Your task to perform on an android device: Open Youtube and go to "Your channel" Image 0: 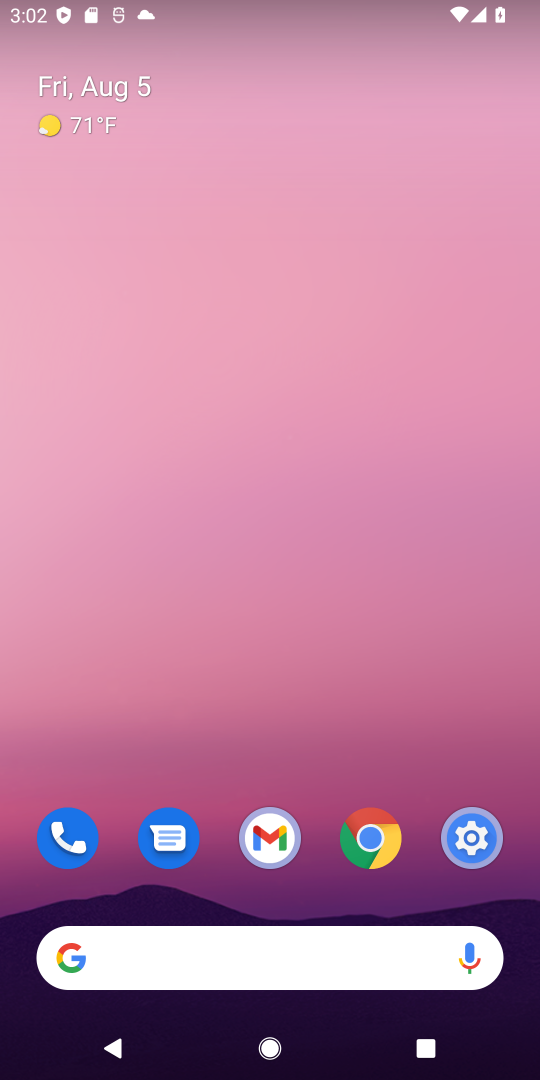
Step 0: drag from (423, 786) to (358, 64)
Your task to perform on an android device: Open Youtube and go to "Your channel" Image 1: 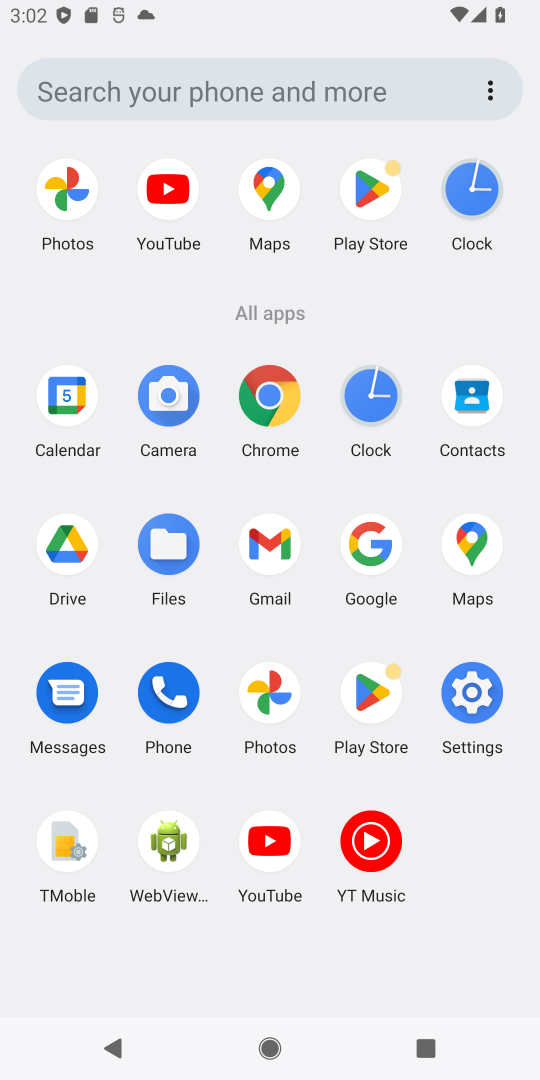
Step 1: click (268, 842)
Your task to perform on an android device: Open Youtube and go to "Your channel" Image 2: 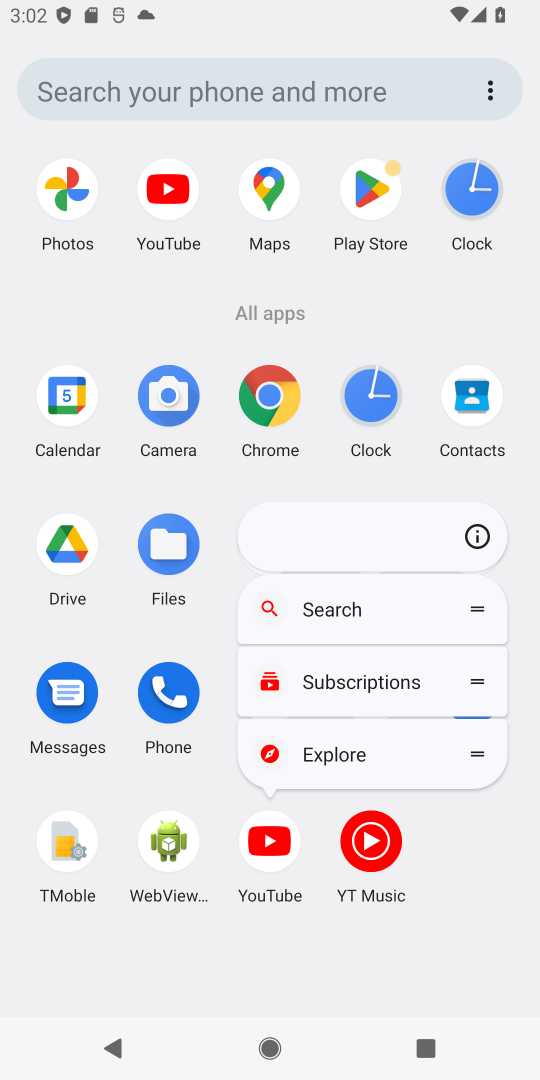
Step 2: click (270, 851)
Your task to perform on an android device: Open Youtube and go to "Your channel" Image 3: 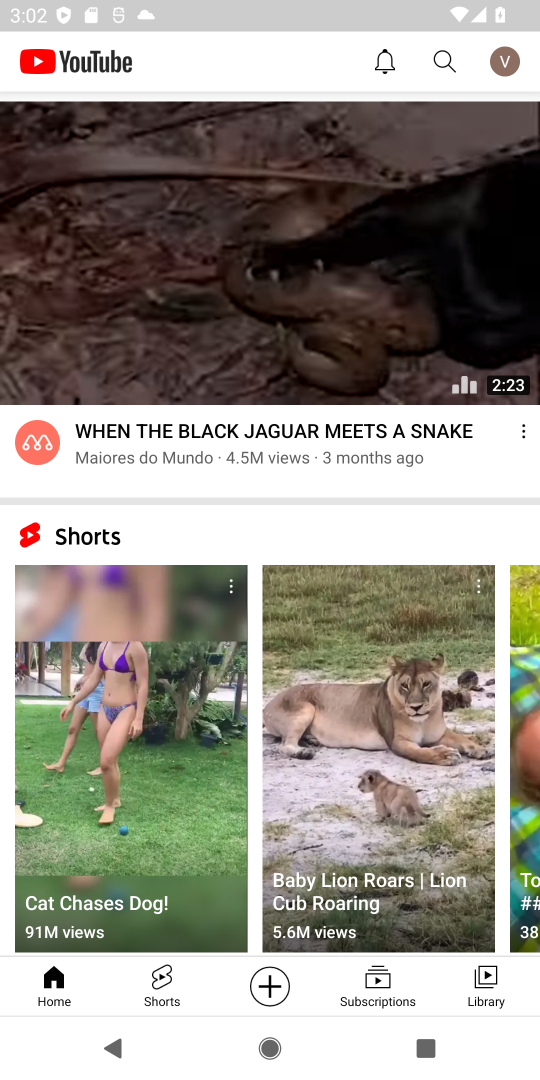
Step 3: click (504, 55)
Your task to perform on an android device: Open Youtube and go to "Your channel" Image 4: 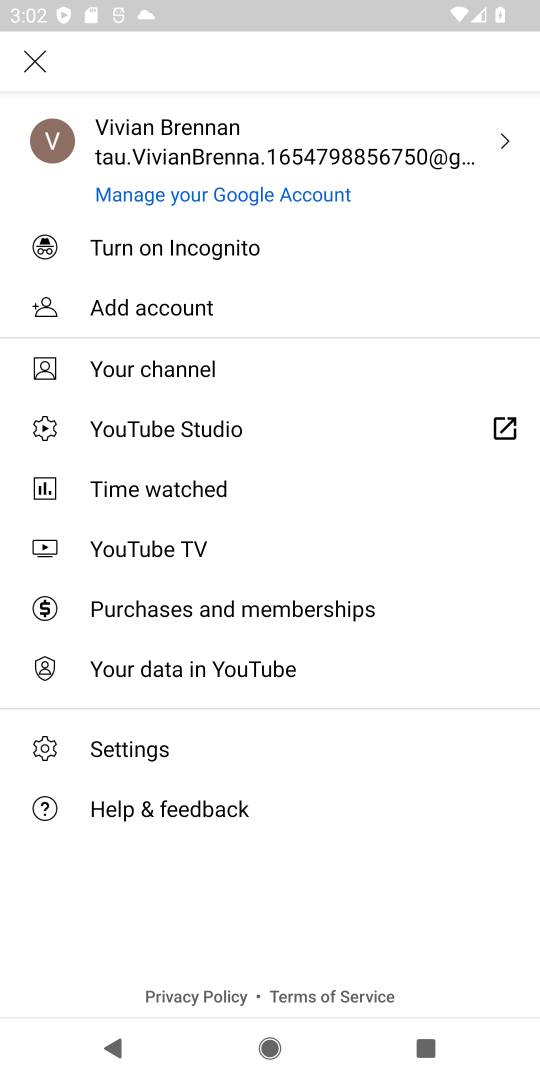
Step 4: click (218, 381)
Your task to perform on an android device: Open Youtube and go to "Your channel" Image 5: 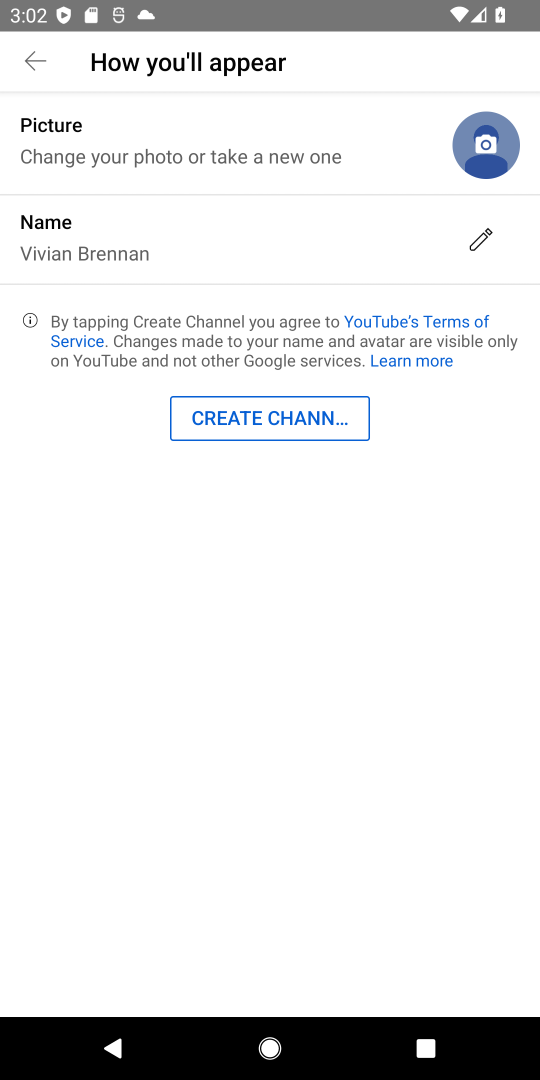
Step 5: task complete